Your task to perform on an android device: turn off notifications in google photos Image 0: 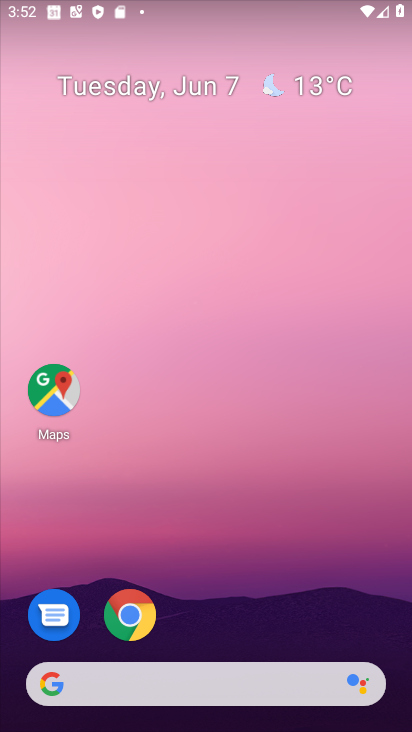
Step 0: drag from (299, 703) to (99, 8)
Your task to perform on an android device: turn off notifications in google photos Image 1: 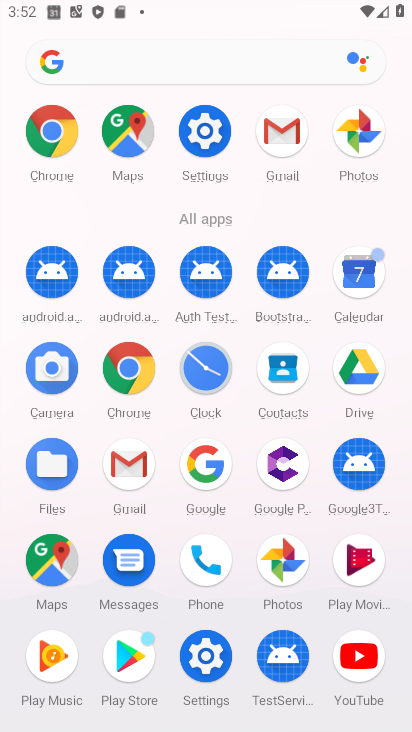
Step 1: click (276, 565)
Your task to perform on an android device: turn off notifications in google photos Image 2: 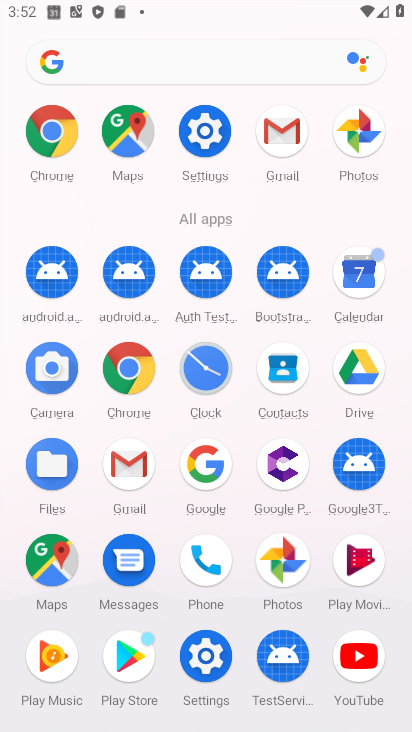
Step 2: click (276, 564)
Your task to perform on an android device: turn off notifications in google photos Image 3: 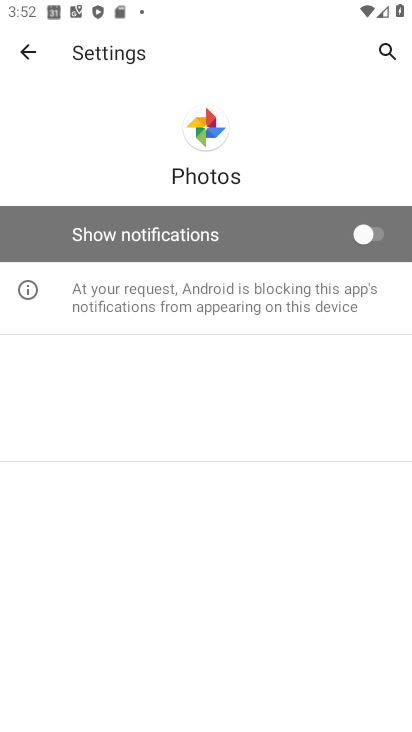
Step 3: click (276, 564)
Your task to perform on an android device: turn off notifications in google photos Image 4: 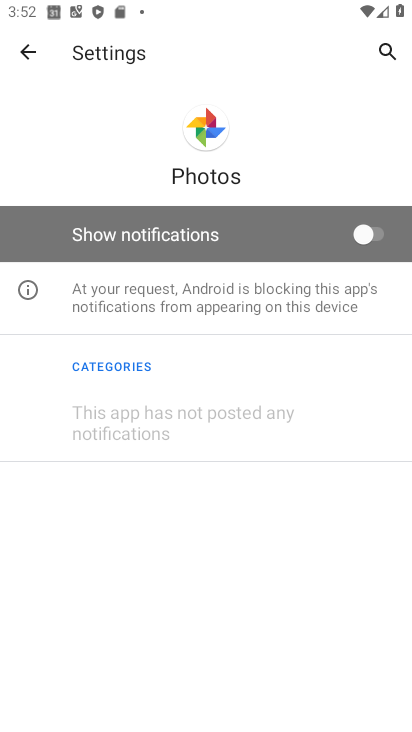
Step 4: task complete